Your task to perform on an android device: turn on the 24-hour format for clock Image 0: 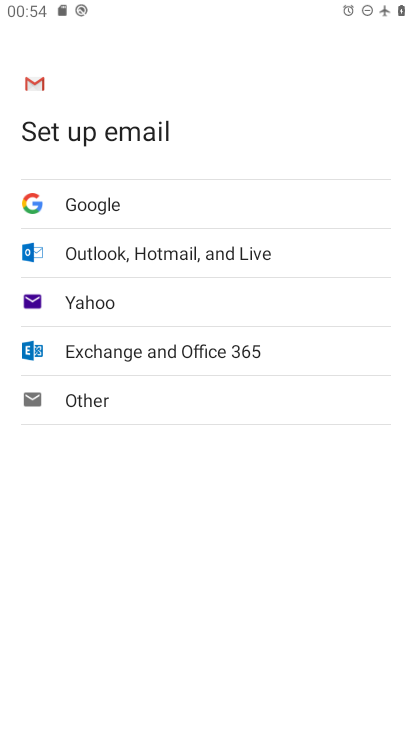
Step 0: press home button
Your task to perform on an android device: turn on the 24-hour format for clock Image 1: 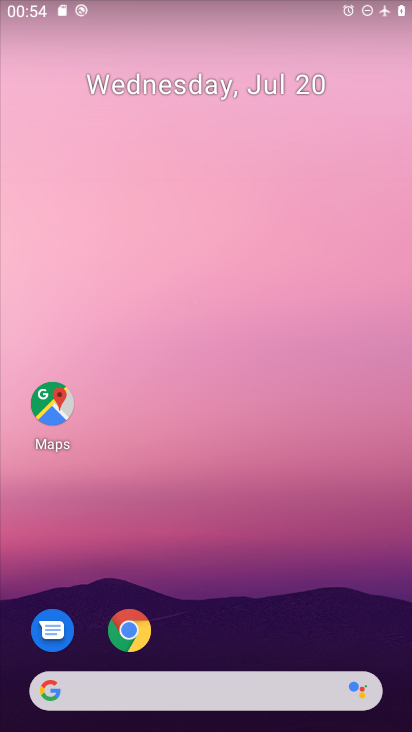
Step 1: drag from (186, 623) to (162, 172)
Your task to perform on an android device: turn on the 24-hour format for clock Image 2: 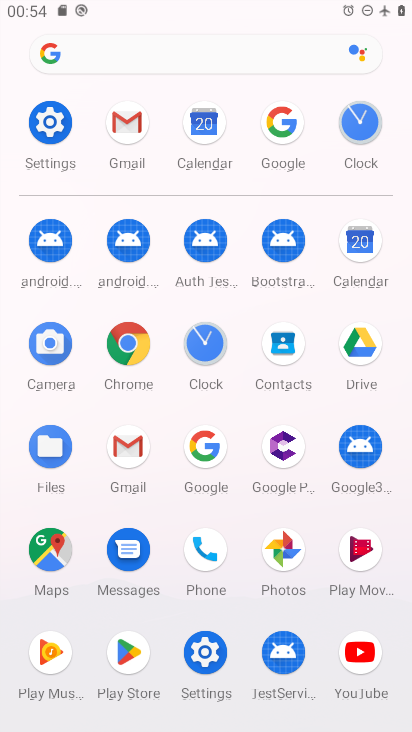
Step 2: click (353, 127)
Your task to perform on an android device: turn on the 24-hour format for clock Image 3: 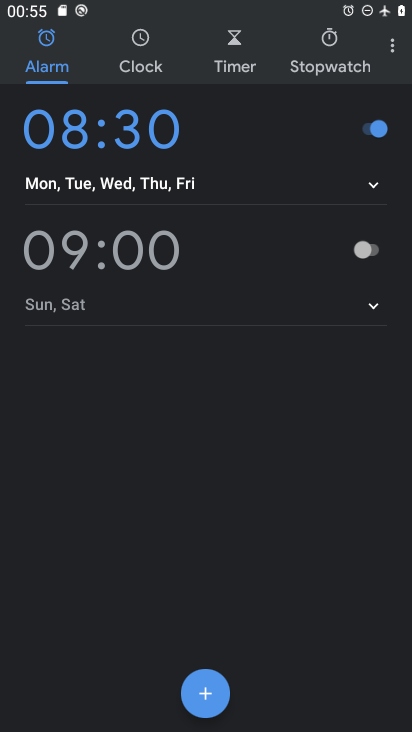
Step 3: click (388, 48)
Your task to perform on an android device: turn on the 24-hour format for clock Image 4: 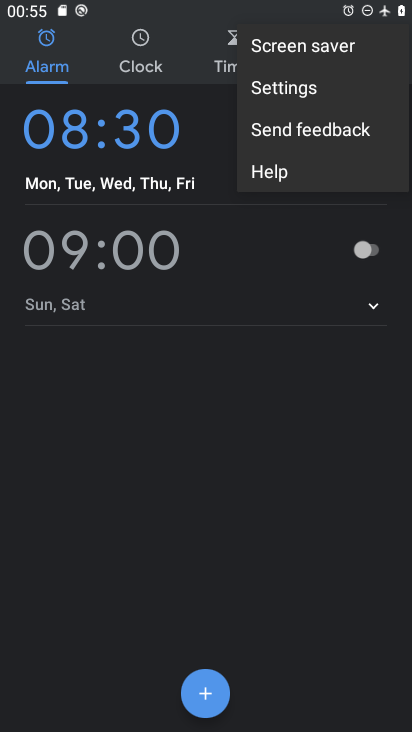
Step 4: click (319, 97)
Your task to perform on an android device: turn on the 24-hour format for clock Image 5: 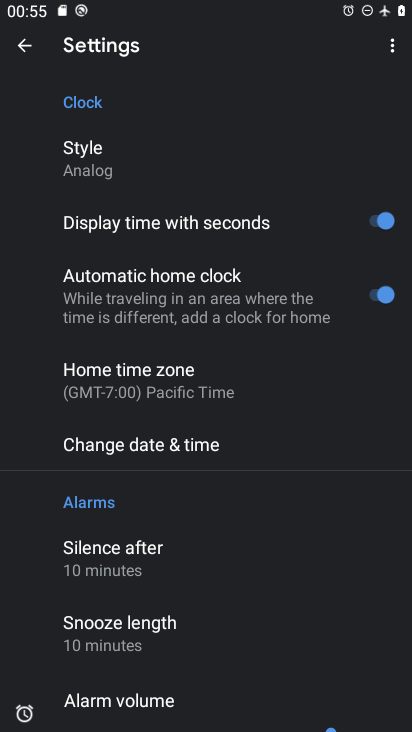
Step 5: click (173, 444)
Your task to perform on an android device: turn on the 24-hour format for clock Image 6: 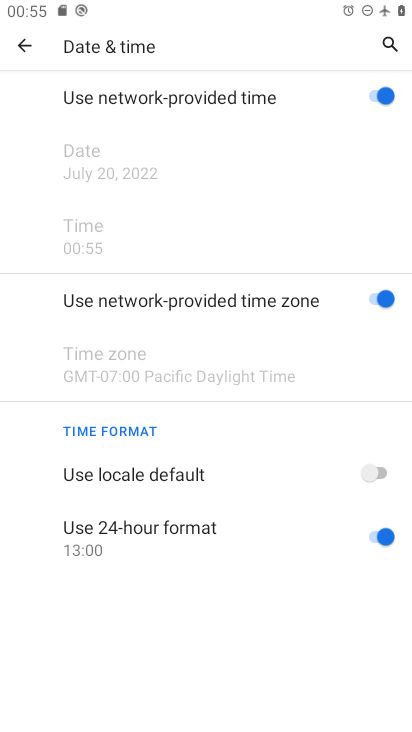
Step 6: task complete